Your task to perform on an android device: Do I have any events today? Image 0: 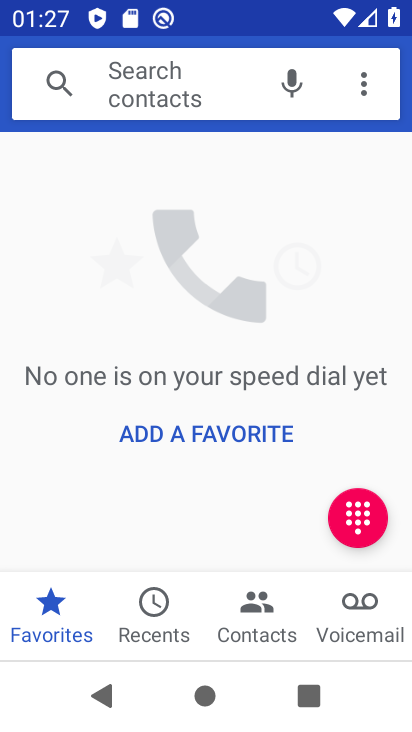
Step 0: press home button
Your task to perform on an android device: Do I have any events today? Image 1: 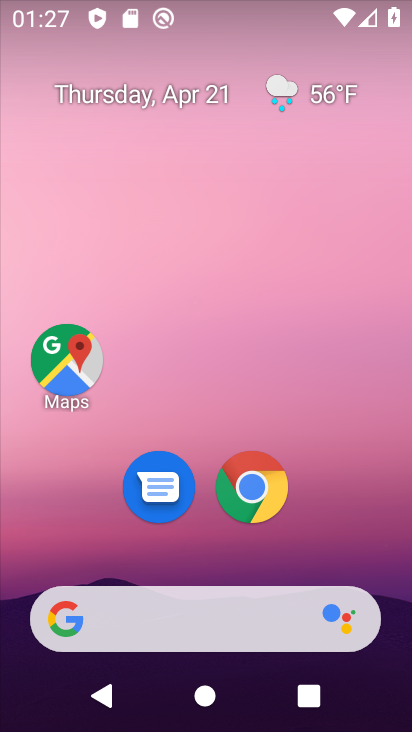
Step 1: drag from (328, 538) to (337, 35)
Your task to perform on an android device: Do I have any events today? Image 2: 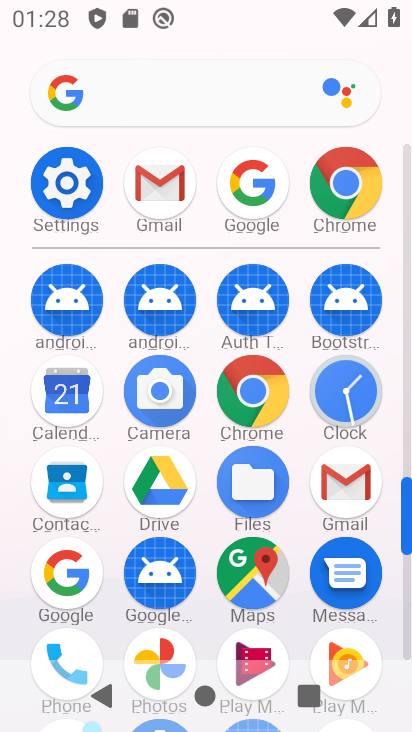
Step 2: click (83, 404)
Your task to perform on an android device: Do I have any events today? Image 3: 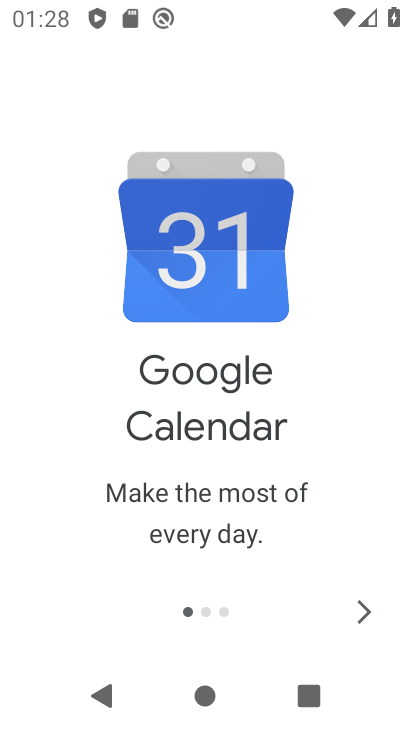
Step 3: click (360, 617)
Your task to perform on an android device: Do I have any events today? Image 4: 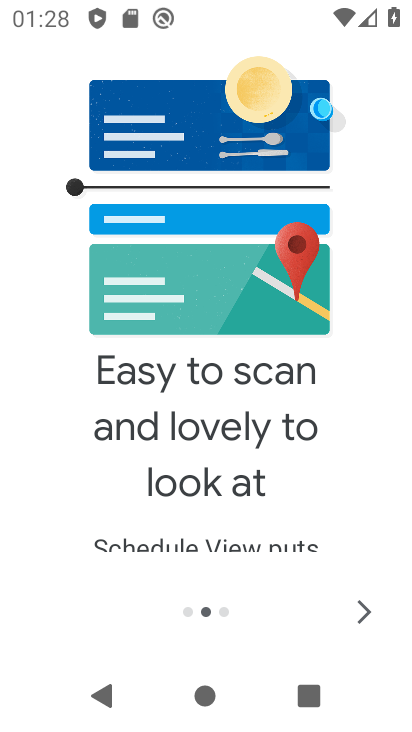
Step 4: click (360, 617)
Your task to perform on an android device: Do I have any events today? Image 5: 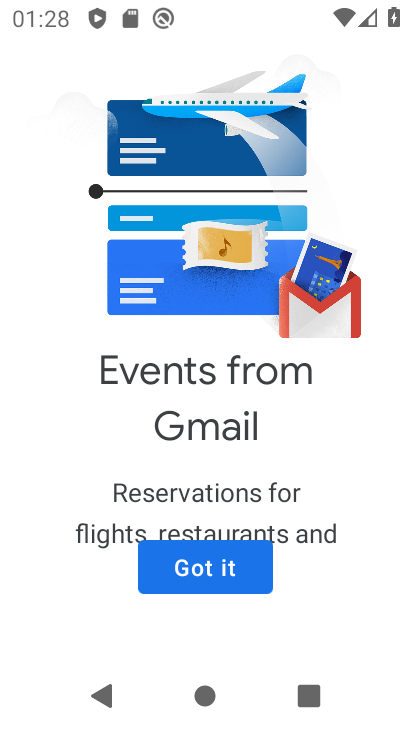
Step 5: click (188, 575)
Your task to perform on an android device: Do I have any events today? Image 6: 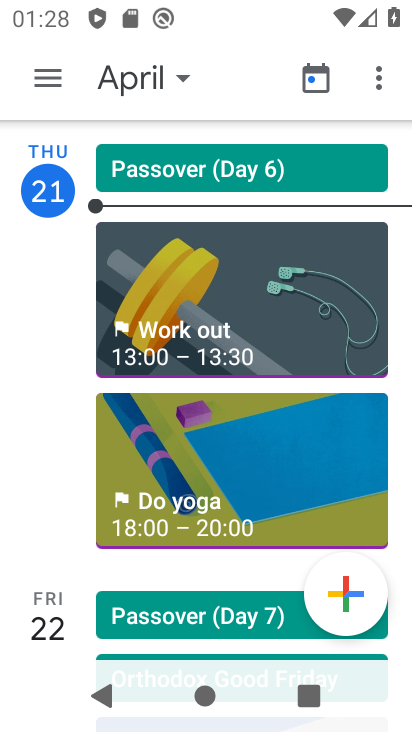
Step 6: click (128, 76)
Your task to perform on an android device: Do I have any events today? Image 7: 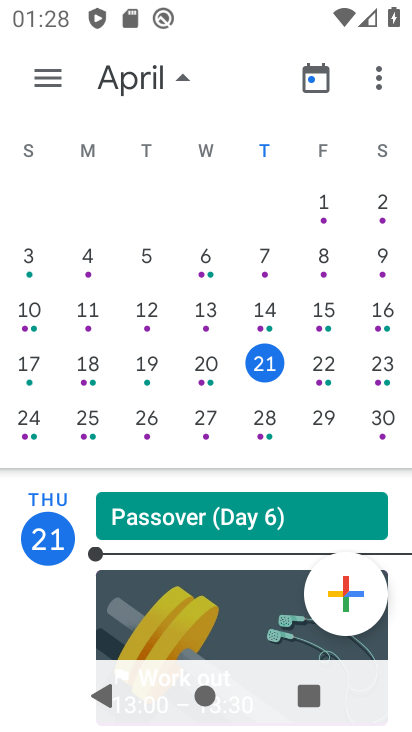
Step 7: click (266, 373)
Your task to perform on an android device: Do I have any events today? Image 8: 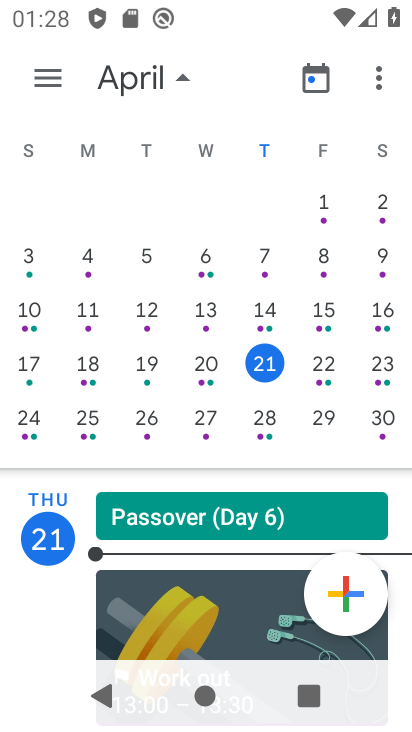
Step 8: task complete